Your task to perform on an android device: What's on my calendar tomorrow? Image 0: 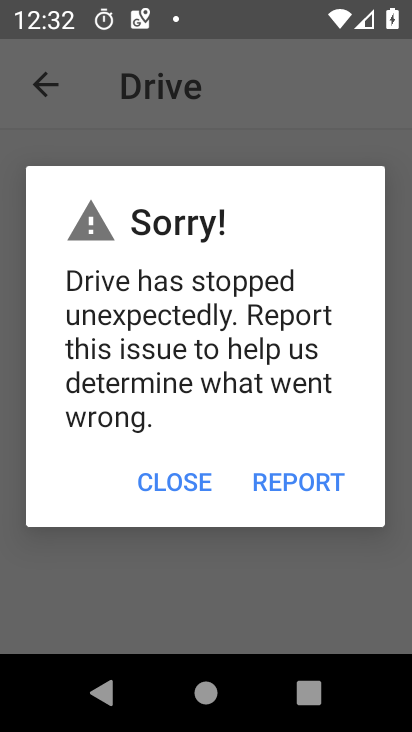
Step 0: press home button
Your task to perform on an android device: What's on my calendar tomorrow? Image 1: 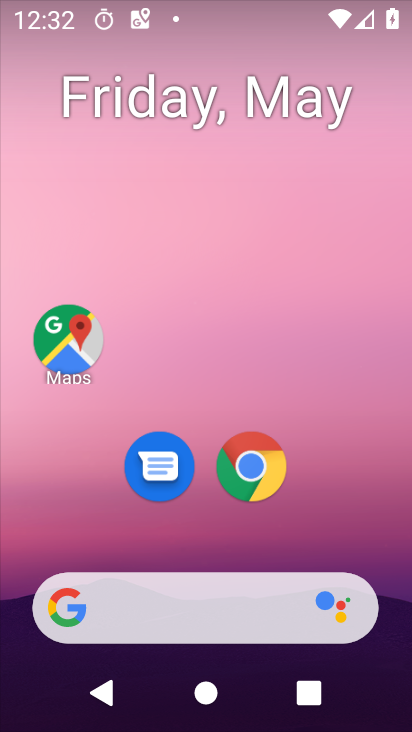
Step 1: drag from (391, 598) to (149, 16)
Your task to perform on an android device: What's on my calendar tomorrow? Image 2: 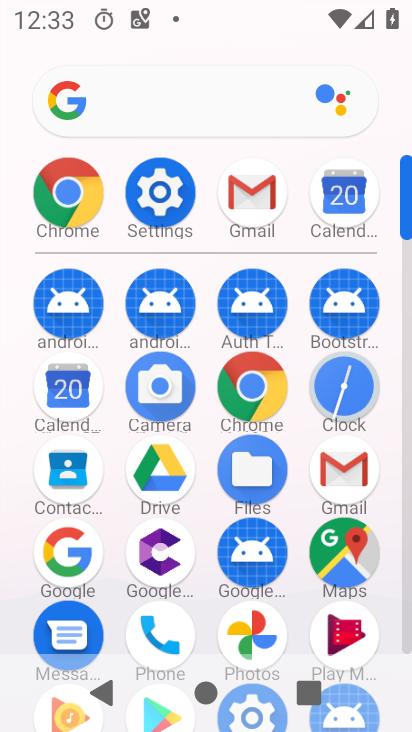
Step 2: click (327, 220)
Your task to perform on an android device: What's on my calendar tomorrow? Image 3: 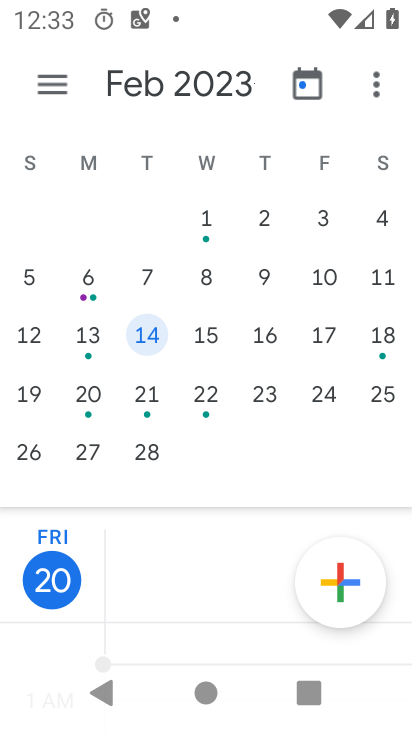
Step 3: task complete